Your task to perform on an android device: When is my next appointment? Image 0: 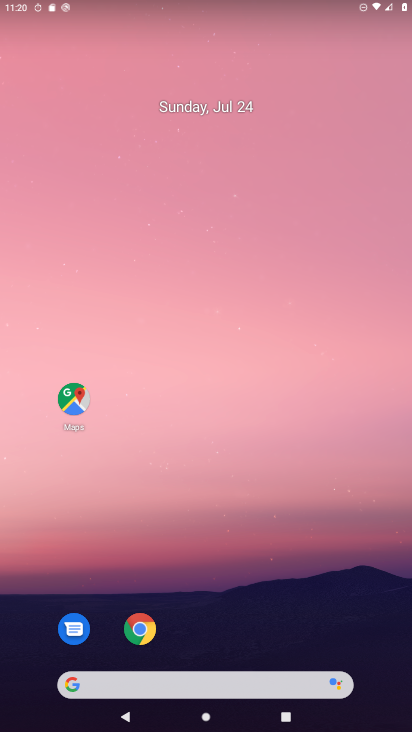
Step 0: drag from (225, 686) to (292, 236)
Your task to perform on an android device: When is my next appointment? Image 1: 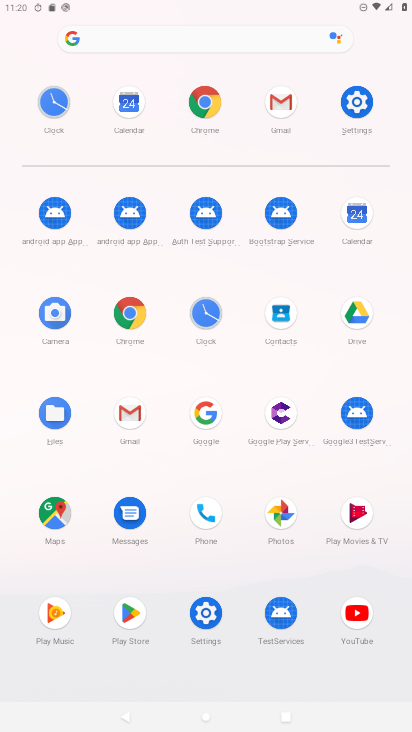
Step 1: click (351, 233)
Your task to perform on an android device: When is my next appointment? Image 2: 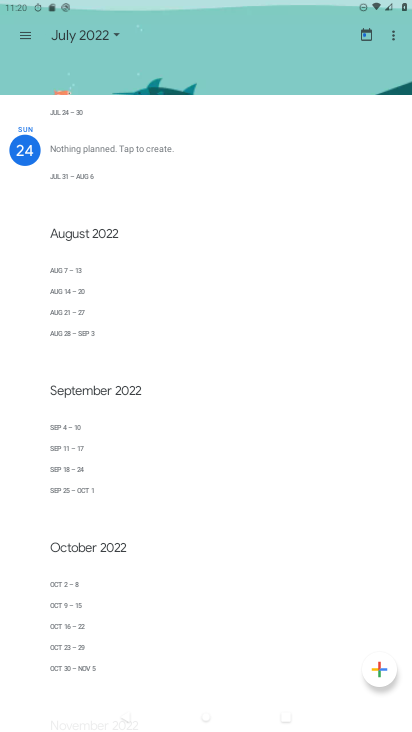
Step 2: task complete